Your task to perform on an android device: What's on my calendar tomorrow? Image 0: 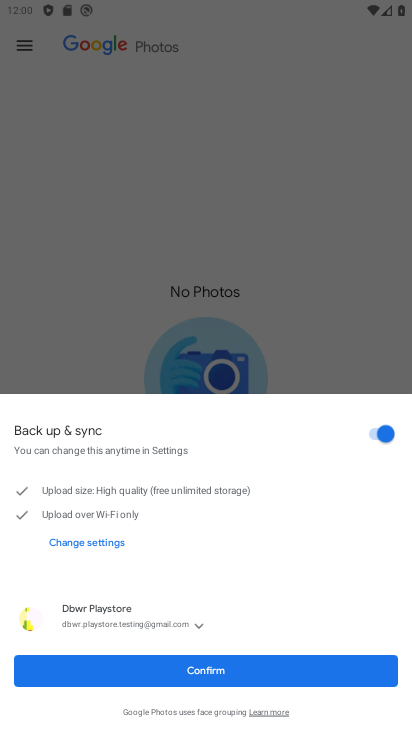
Step 0: press home button
Your task to perform on an android device: What's on my calendar tomorrow? Image 1: 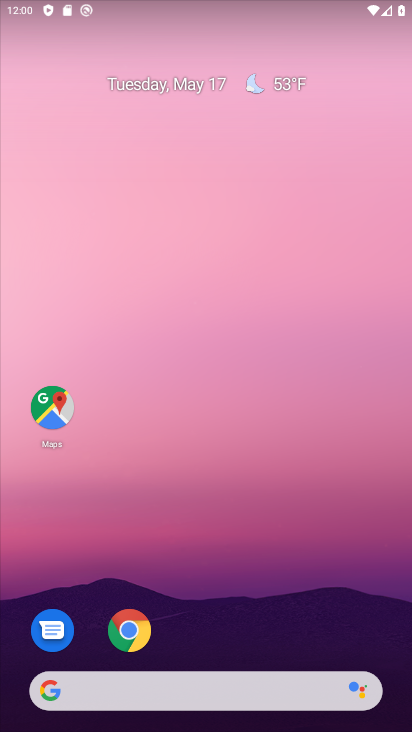
Step 1: drag from (236, 607) to (271, 263)
Your task to perform on an android device: What's on my calendar tomorrow? Image 2: 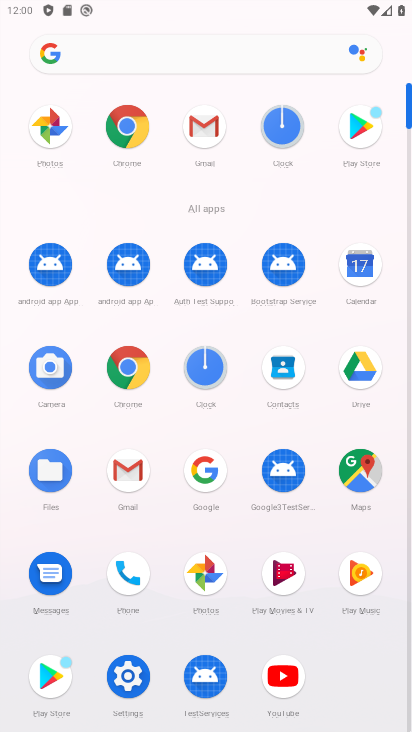
Step 2: click (347, 282)
Your task to perform on an android device: What's on my calendar tomorrow? Image 3: 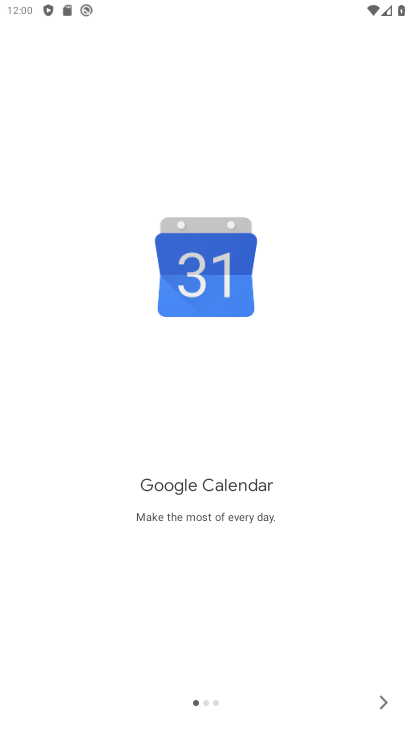
Step 3: click (382, 697)
Your task to perform on an android device: What's on my calendar tomorrow? Image 4: 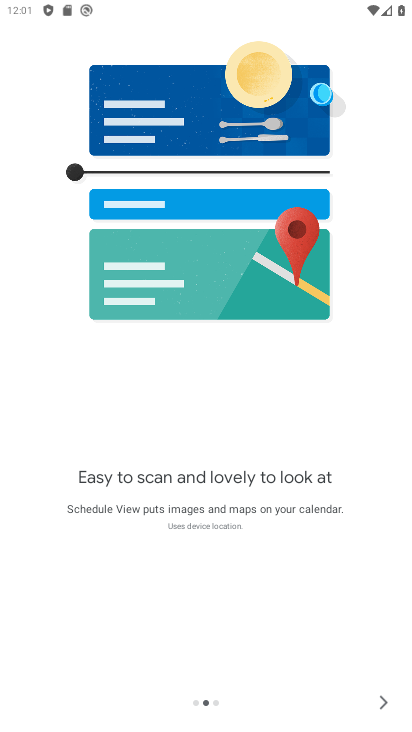
Step 4: click (387, 698)
Your task to perform on an android device: What's on my calendar tomorrow? Image 5: 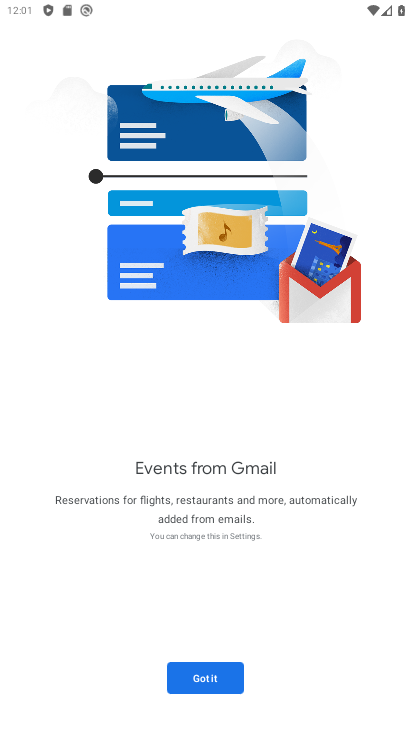
Step 5: click (223, 673)
Your task to perform on an android device: What's on my calendar tomorrow? Image 6: 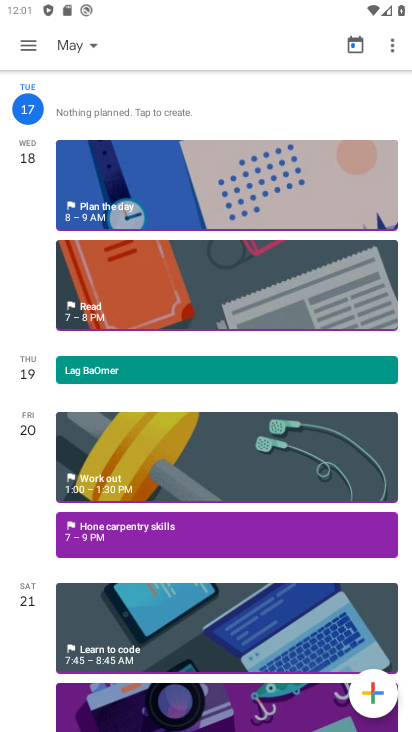
Step 6: task complete